Your task to perform on an android device: Go to settings Image 0: 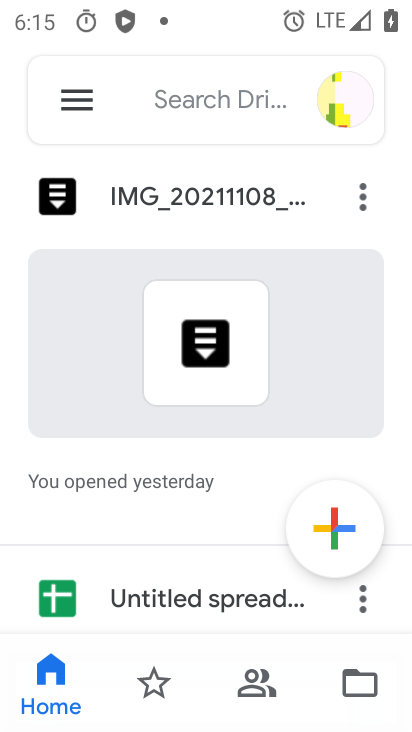
Step 0: press home button
Your task to perform on an android device: Go to settings Image 1: 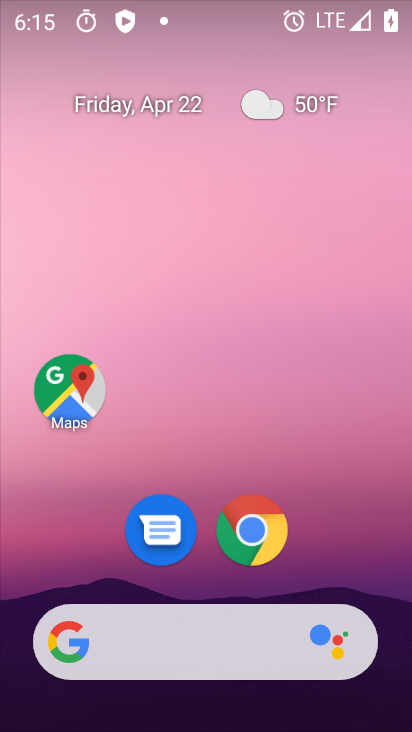
Step 1: drag from (342, 532) to (265, 117)
Your task to perform on an android device: Go to settings Image 2: 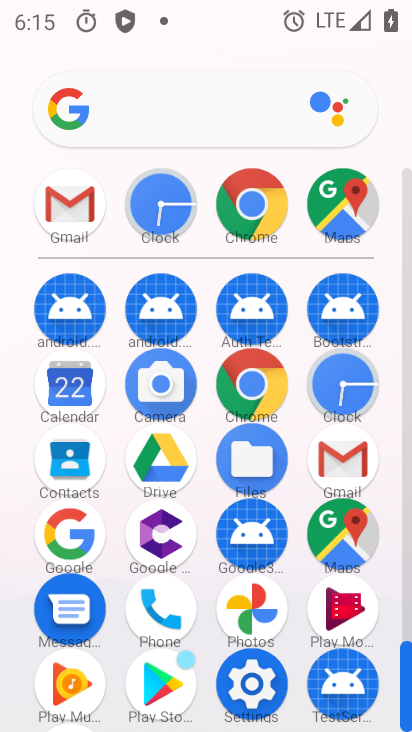
Step 2: click (256, 673)
Your task to perform on an android device: Go to settings Image 3: 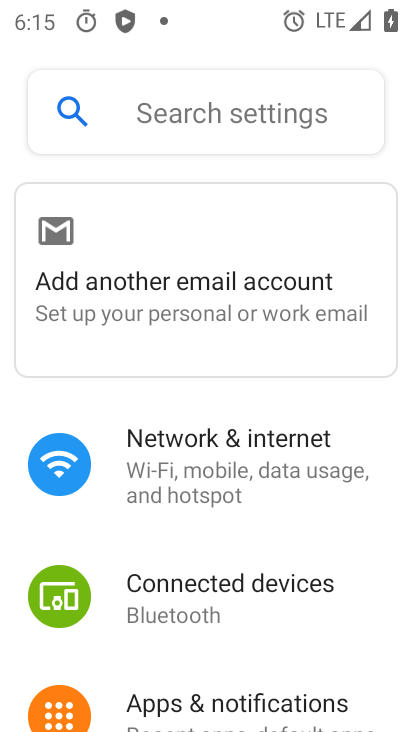
Step 3: task complete